Your task to perform on an android device: add a contact in the contacts app Image 0: 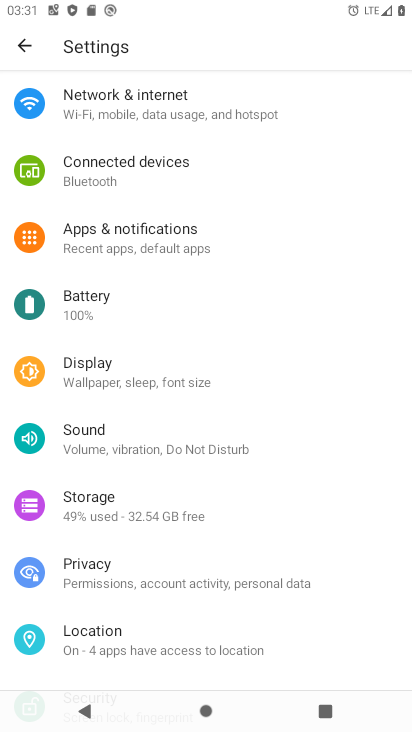
Step 0: press home button
Your task to perform on an android device: add a contact in the contacts app Image 1: 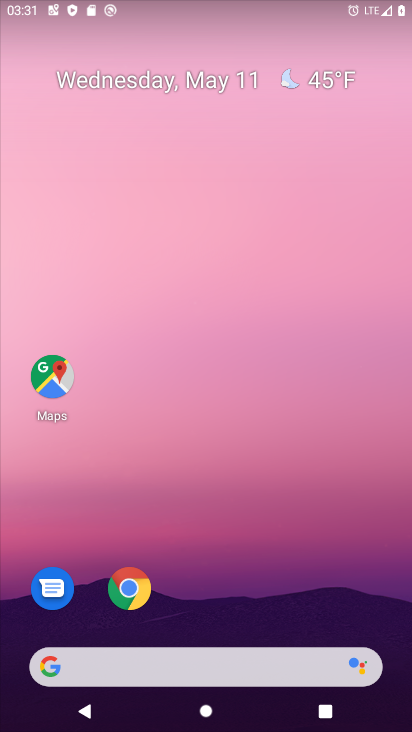
Step 1: drag from (223, 586) to (223, 311)
Your task to perform on an android device: add a contact in the contacts app Image 2: 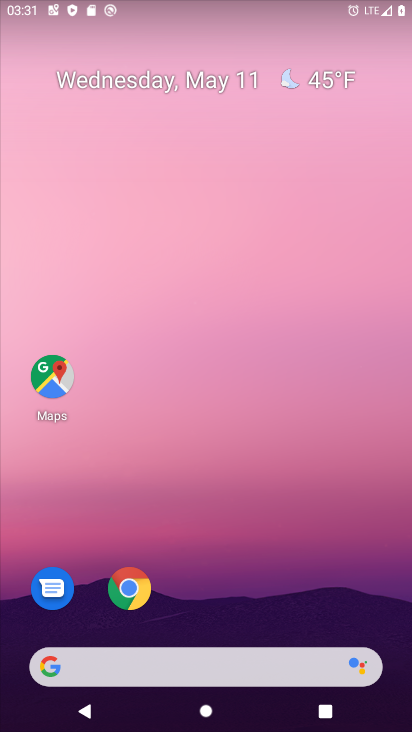
Step 2: drag from (218, 598) to (198, 296)
Your task to perform on an android device: add a contact in the contacts app Image 3: 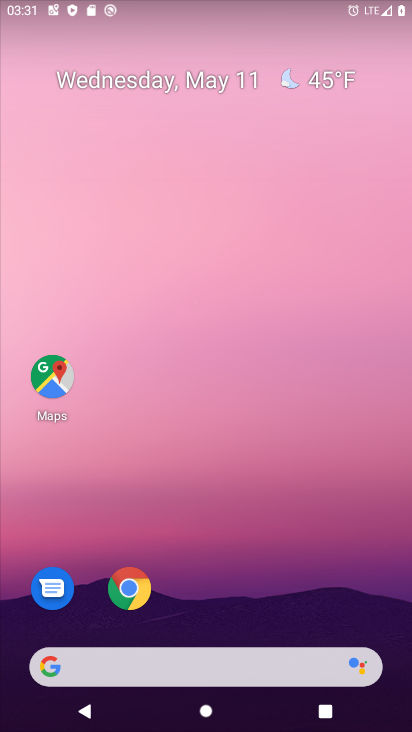
Step 3: drag from (226, 619) to (211, 238)
Your task to perform on an android device: add a contact in the contacts app Image 4: 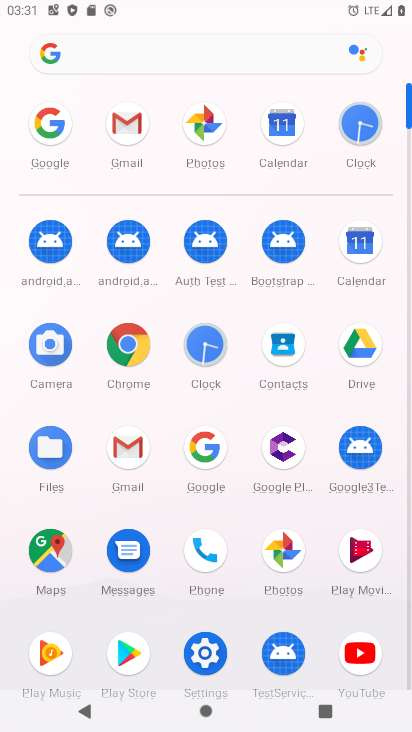
Step 4: click (299, 352)
Your task to perform on an android device: add a contact in the contacts app Image 5: 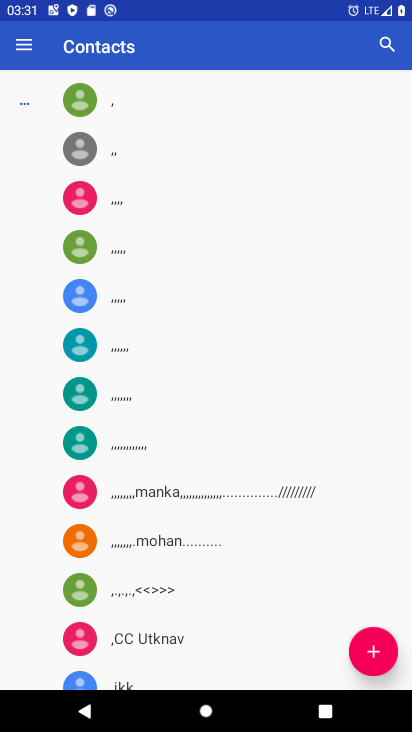
Step 5: click (365, 639)
Your task to perform on an android device: add a contact in the contacts app Image 6: 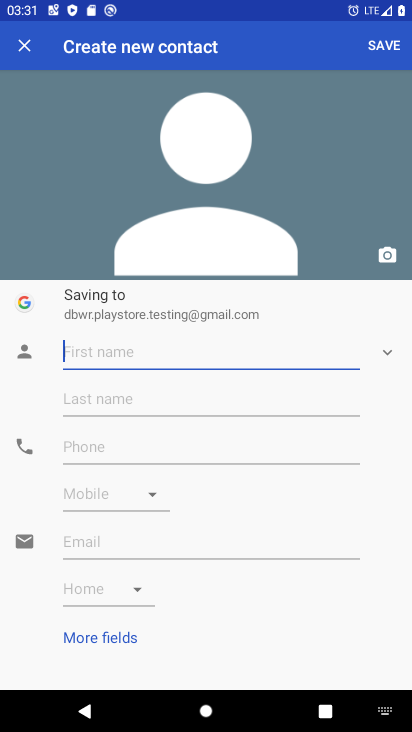
Step 6: type "dfhfg"
Your task to perform on an android device: add a contact in the contacts app Image 7: 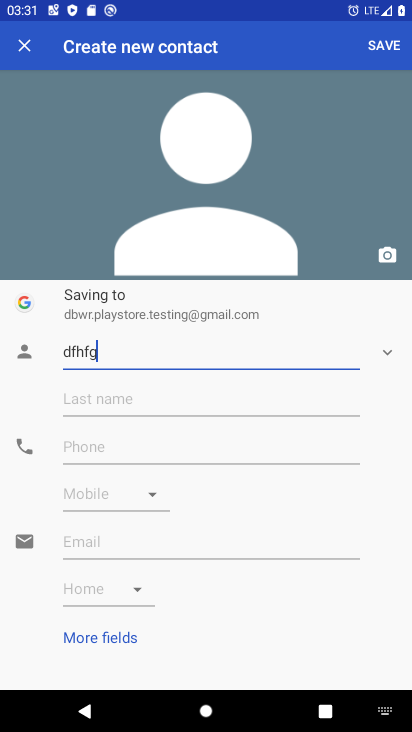
Step 7: click (175, 451)
Your task to perform on an android device: add a contact in the contacts app Image 8: 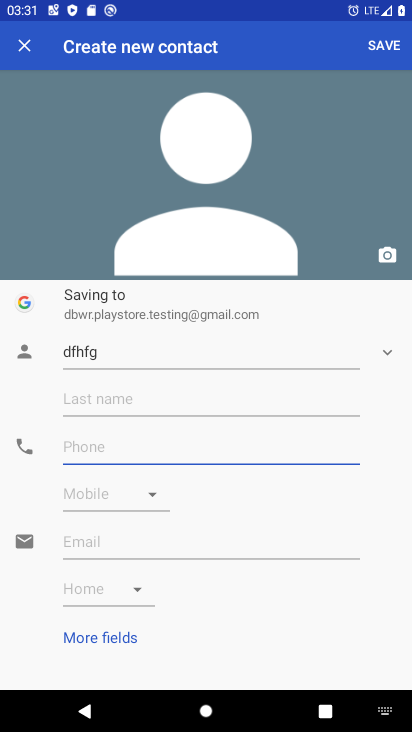
Step 8: type "8756786787"
Your task to perform on an android device: add a contact in the contacts app Image 9: 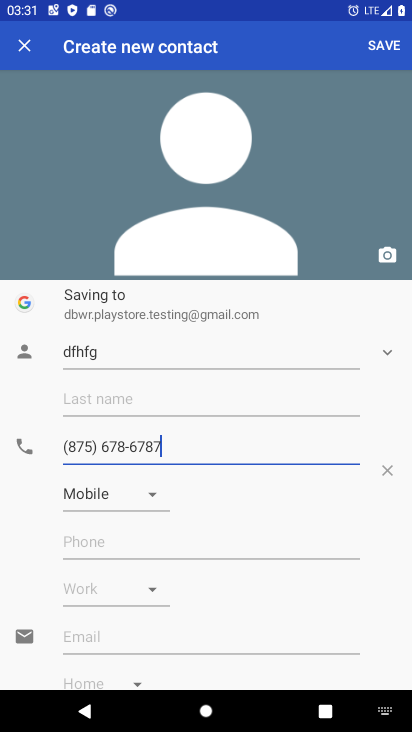
Step 9: click (376, 45)
Your task to perform on an android device: add a contact in the contacts app Image 10: 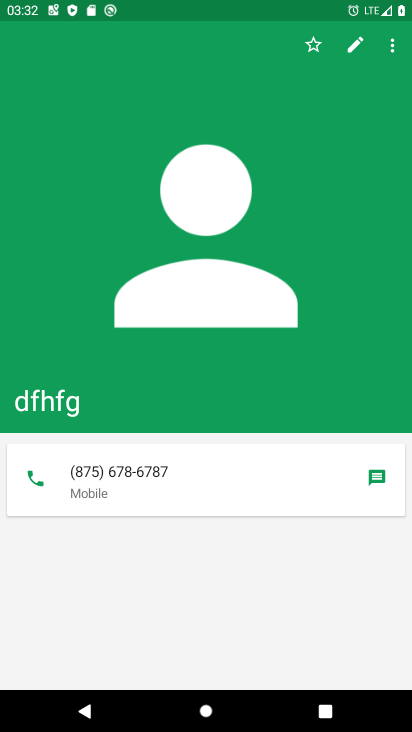
Step 10: task complete